Your task to perform on an android device: Do I have any events tomorrow? Image 0: 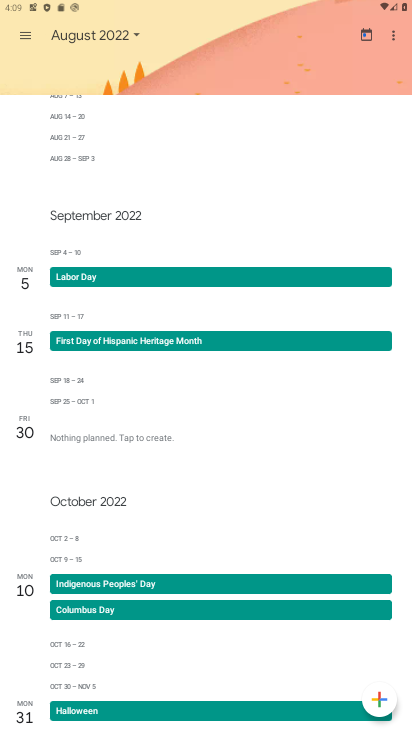
Step 0: click (100, 32)
Your task to perform on an android device: Do I have any events tomorrow? Image 1: 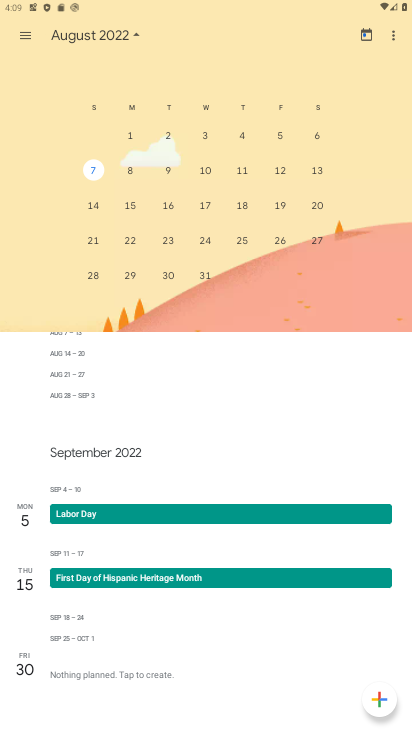
Step 1: click (132, 171)
Your task to perform on an android device: Do I have any events tomorrow? Image 2: 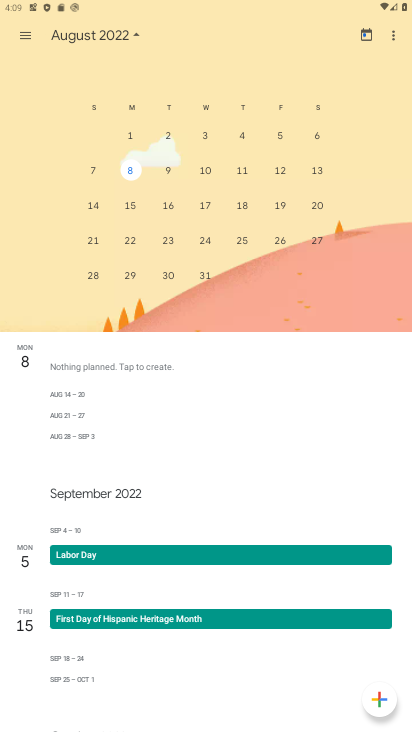
Step 2: task complete